Your task to perform on an android device: turn off wifi Image 0: 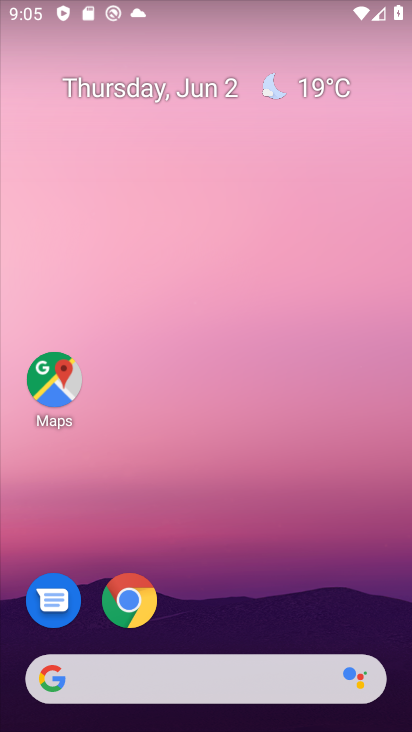
Step 0: drag from (186, 631) to (208, 172)
Your task to perform on an android device: turn off wifi Image 1: 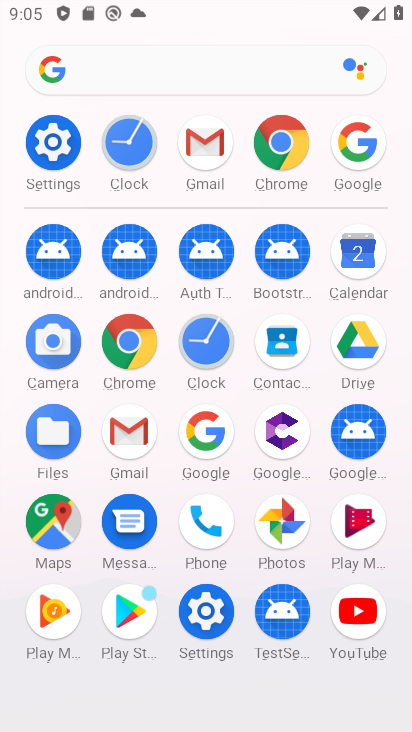
Step 1: click (71, 136)
Your task to perform on an android device: turn off wifi Image 2: 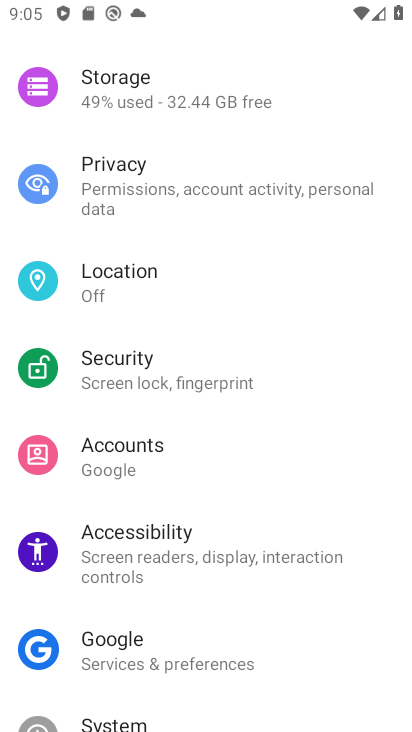
Step 2: drag from (151, 95) to (183, 491)
Your task to perform on an android device: turn off wifi Image 3: 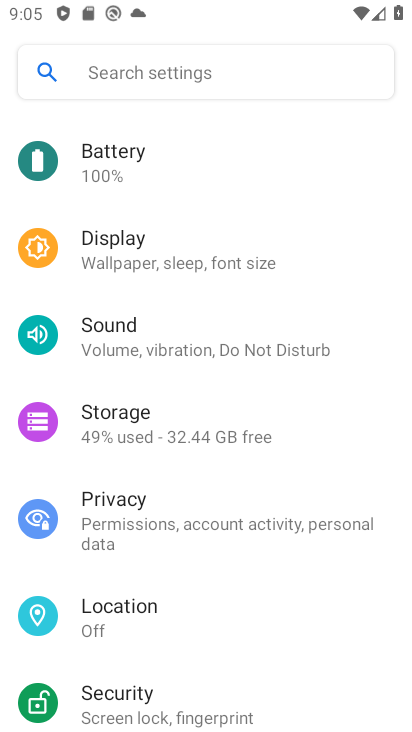
Step 3: drag from (162, 207) to (210, 607)
Your task to perform on an android device: turn off wifi Image 4: 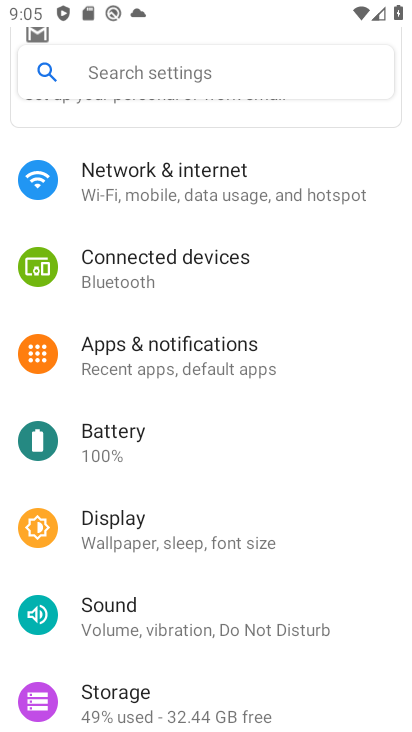
Step 4: click (191, 206)
Your task to perform on an android device: turn off wifi Image 5: 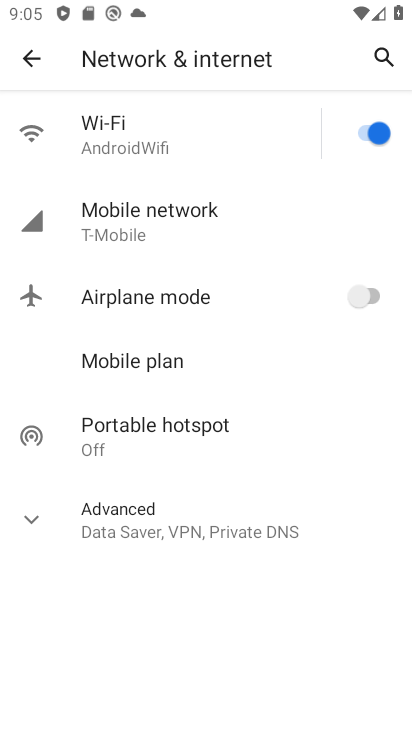
Step 5: click (363, 131)
Your task to perform on an android device: turn off wifi Image 6: 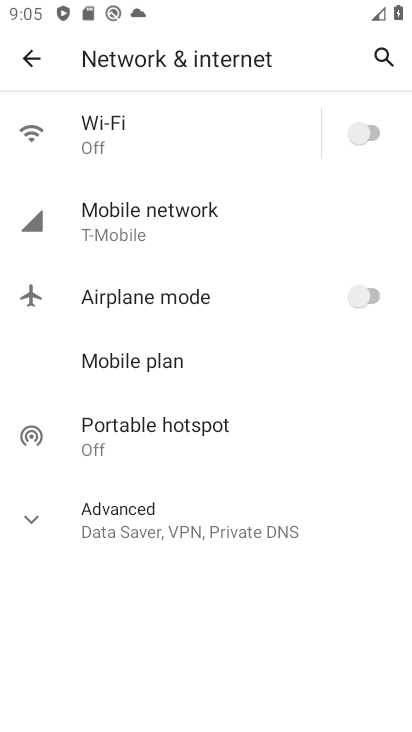
Step 6: task complete